Your task to perform on an android device: What's the weather going to be this weekend? Image 0: 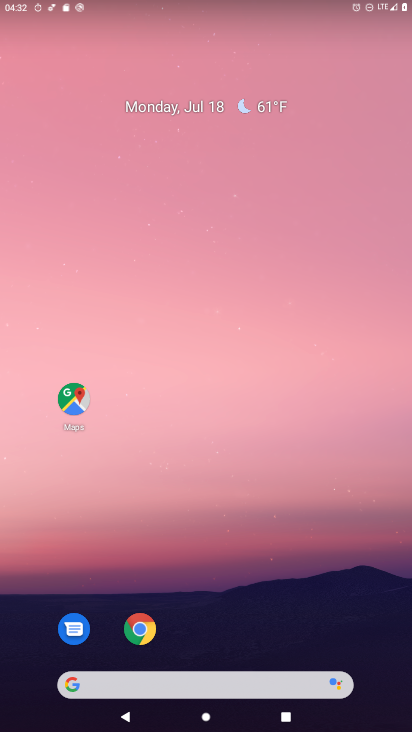
Step 0: drag from (160, 687) to (240, 190)
Your task to perform on an android device: What's the weather going to be this weekend? Image 1: 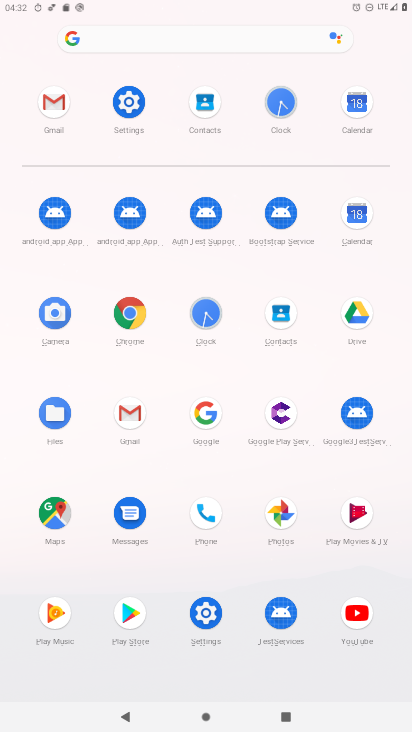
Step 1: click (206, 411)
Your task to perform on an android device: What's the weather going to be this weekend? Image 2: 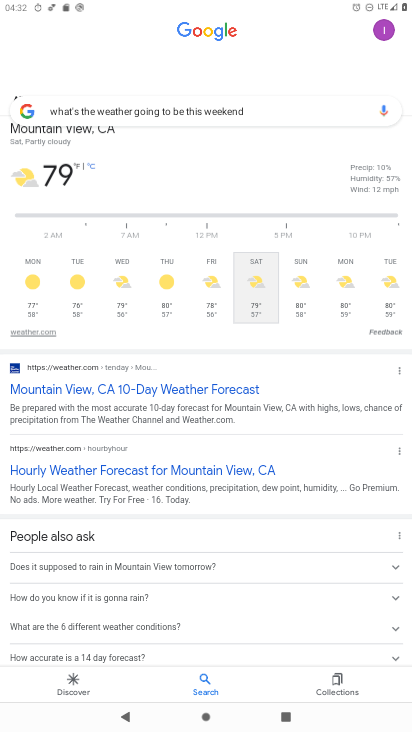
Step 2: click (247, 301)
Your task to perform on an android device: What's the weather going to be this weekend? Image 3: 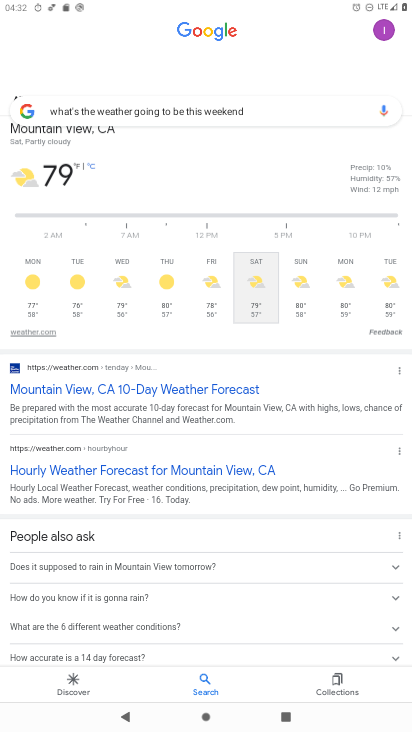
Step 3: task complete